Your task to perform on an android device: Show me productivity apps on the Play Store Image 0: 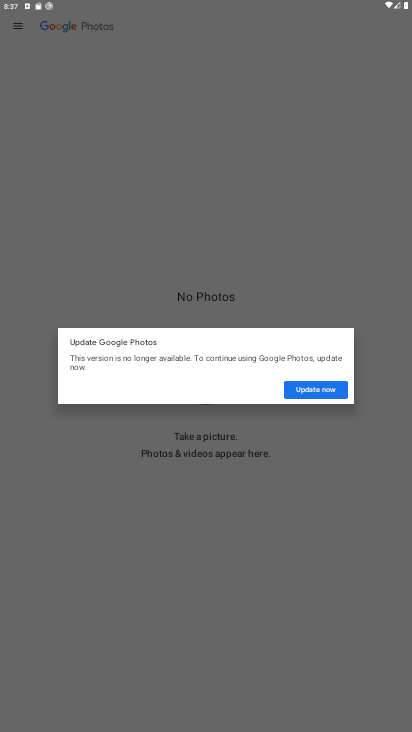
Step 0: press home button
Your task to perform on an android device: Show me productivity apps on the Play Store Image 1: 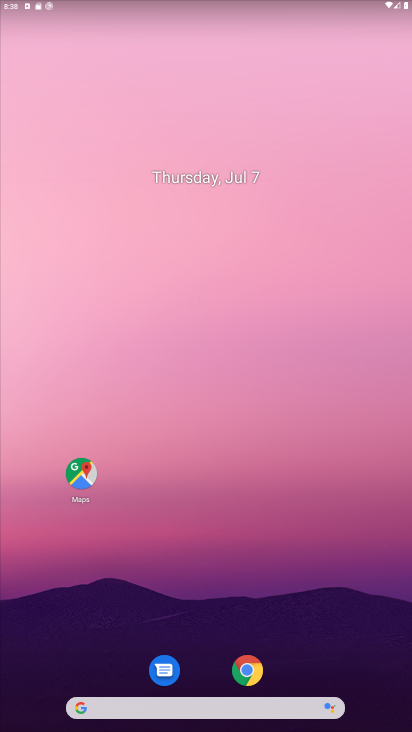
Step 1: drag from (37, 666) to (277, 218)
Your task to perform on an android device: Show me productivity apps on the Play Store Image 2: 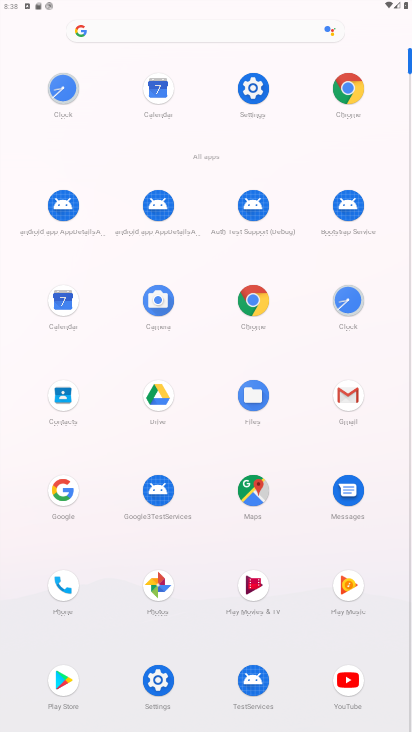
Step 2: click (57, 680)
Your task to perform on an android device: Show me productivity apps on the Play Store Image 3: 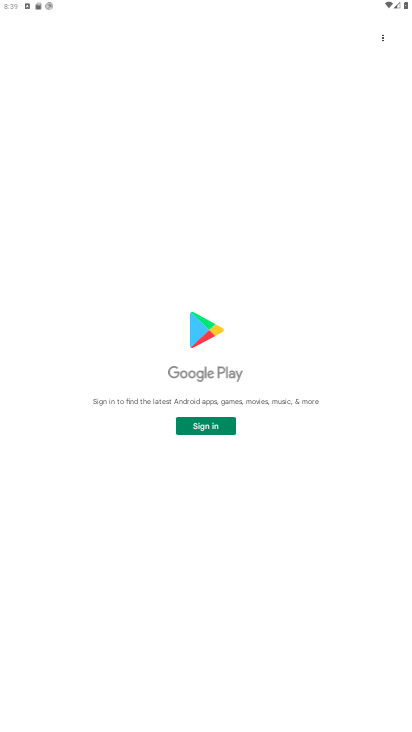
Step 3: task complete